Your task to perform on an android device: toggle priority inbox in the gmail app Image 0: 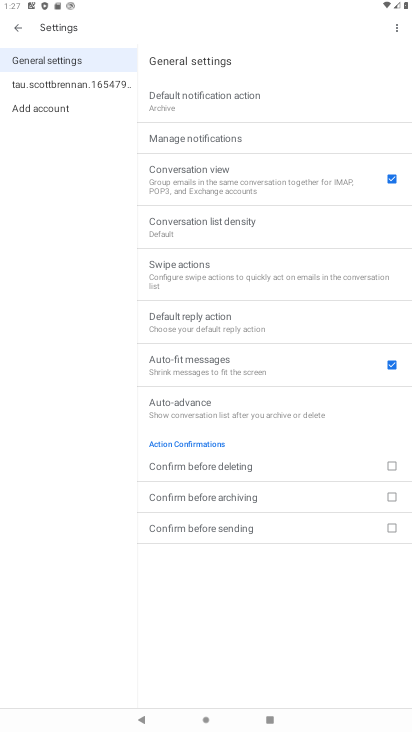
Step 0: press home button
Your task to perform on an android device: toggle priority inbox in the gmail app Image 1: 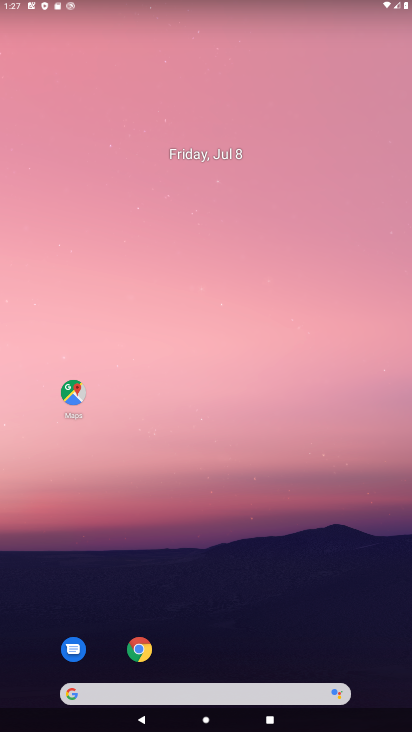
Step 1: drag from (47, 699) to (317, 1)
Your task to perform on an android device: toggle priority inbox in the gmail app Image 2: 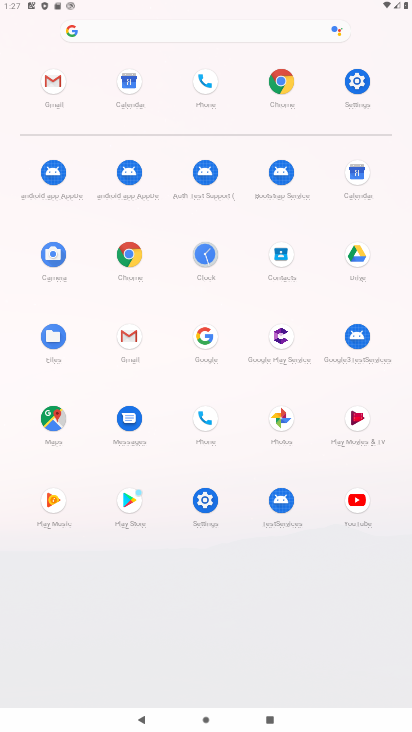
Step 2: click (124, 340)
Your task to perform on an android device: toggle priority inbox in the gmail app Image 3: 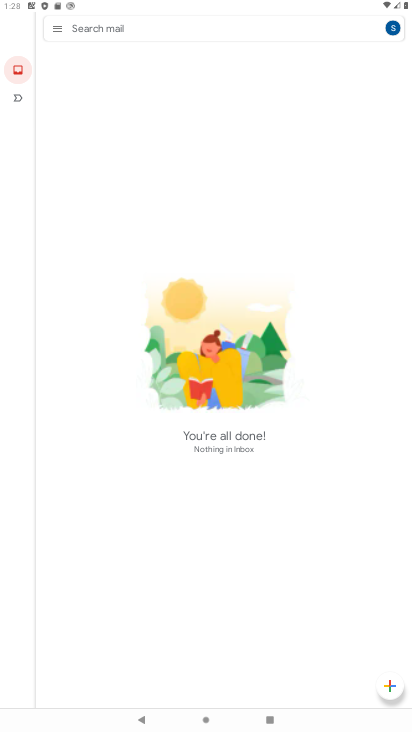
Step 3: click (15, 64)
Your task to perform on an android device: toggle priority inbox in the gmail app Image 4: 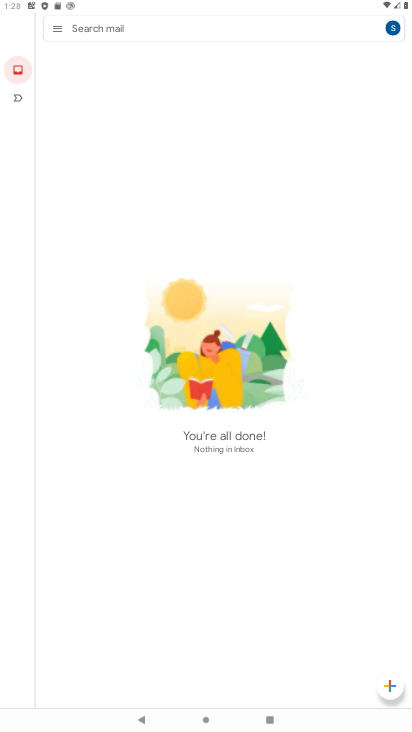
Step 4: click (54, 28)
Your task to perform on an android device: toggle priority inbox in the gmail app Image 5: 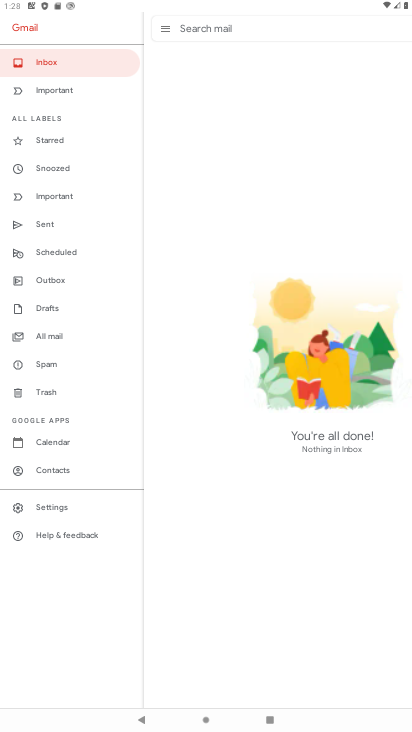
Step 5: click (43, 500)
Your task to perform on an android device: toggle priority inbox in the gmail app Image 6: 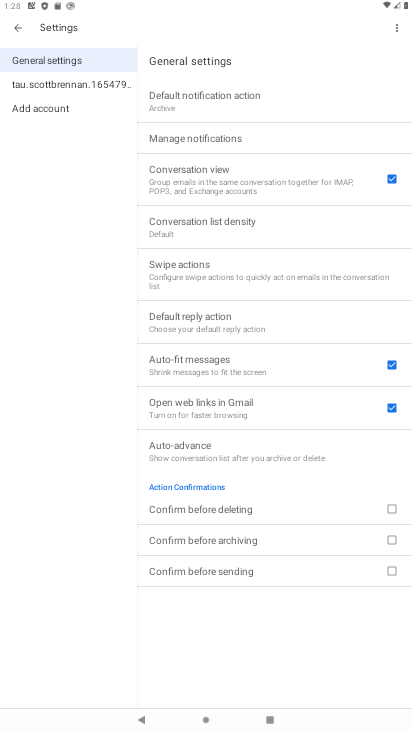
Step 6: click (193, 141)
Your task to perform on an android device: toggle priority inbox in the gmail app Image 7: 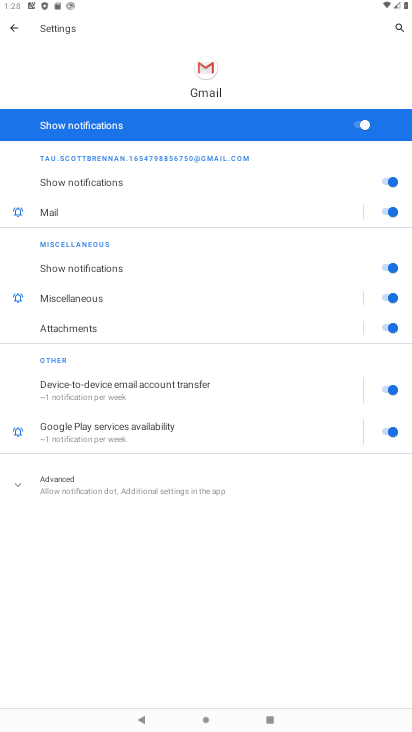
Step 7: task complete